Your task to perform on an android device: Open calendar and show me the fourth week of next month Image 0: 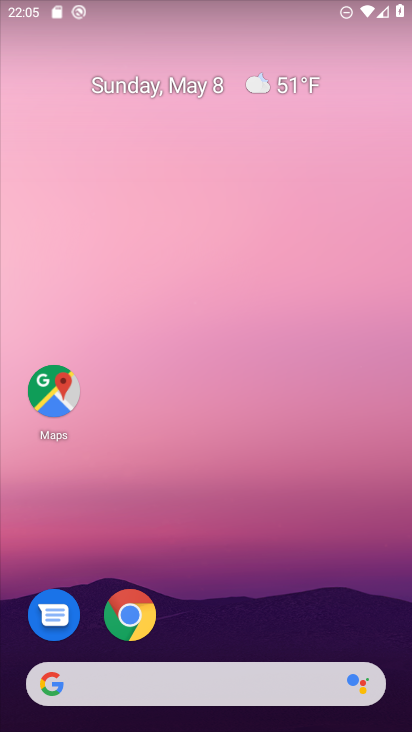
Step 0: drag from (364, 533) to (209, 23)
Your task to perform on an android device: Open calendar and show me the fourth week of next month Image 1: 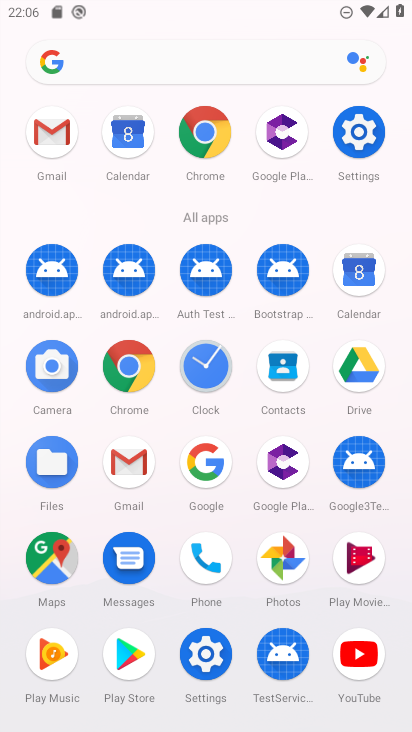
Step 1: click (365, 284)
Your task to perform on an android device: Open calendar and show me the fourth week of next month Image 2: 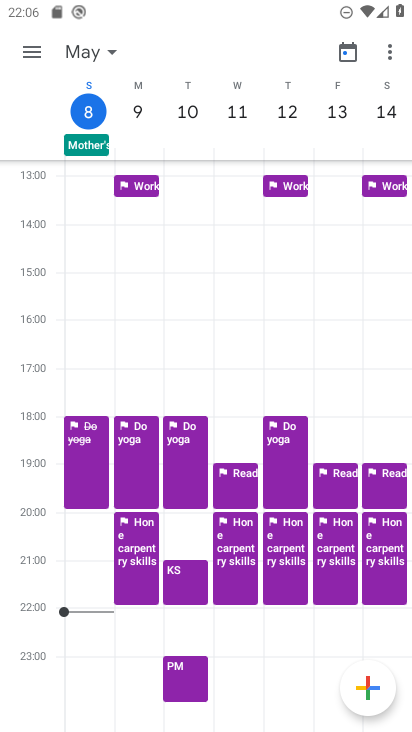
Step 2: click (92, 38)
Your task to perform on an android device: Open calendar and show me the fourth week of next month Image 3: 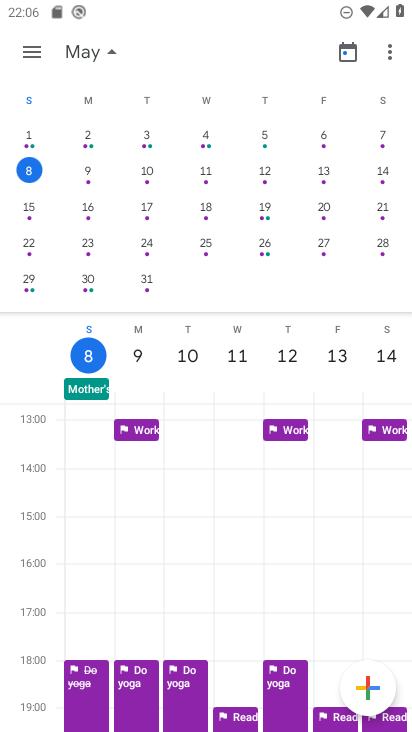
Step 3: drag from (358, 204) to (33, 169)
Your task to perform on an android device: Open calendar and show me the fourth week of next month Image 4: 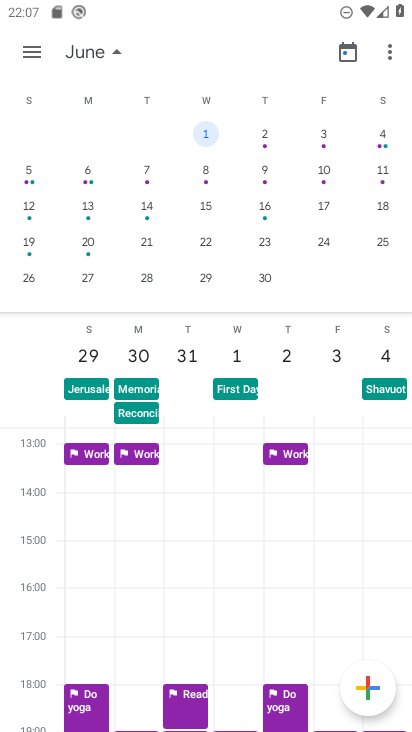
Step 4: click (85, 275)
Your task to perform on an android device: Open calendar and show me the fourth week of next month Image 5: 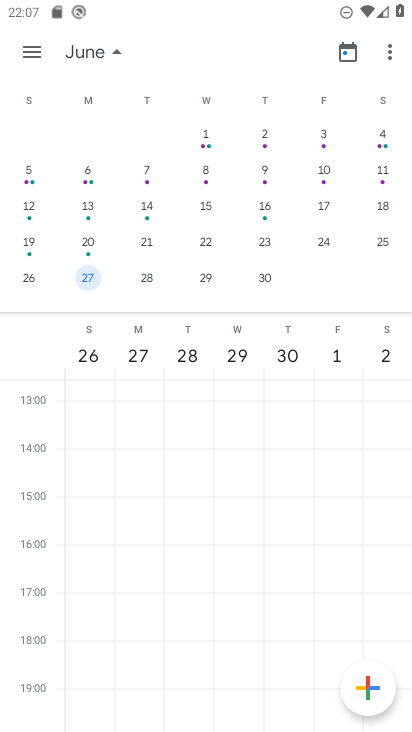
Step 5: task complete